Your task to perform on an android device: Open display settings Image 0: 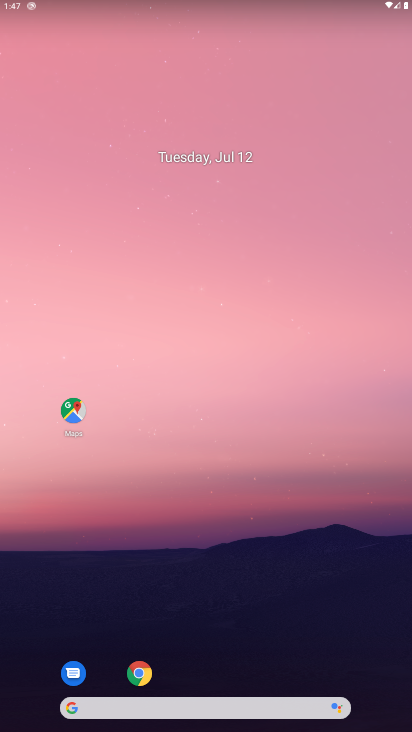
Step 0: click (286, 209)
Your task to perform on an android device: Open display settings Image 1: 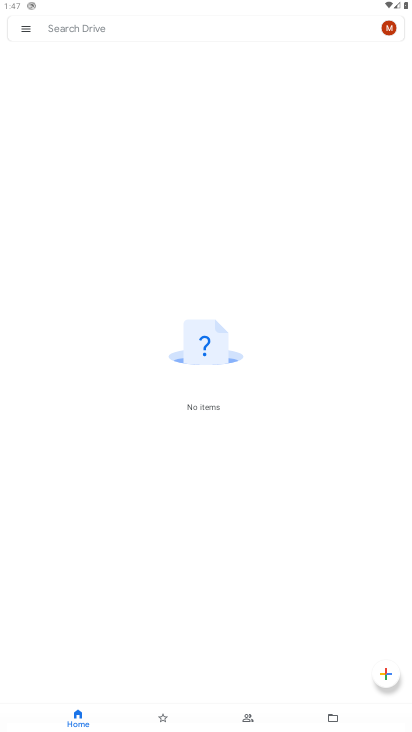
Step 1: press home button
Your task to perform on an android device: Open display settings Image 2: 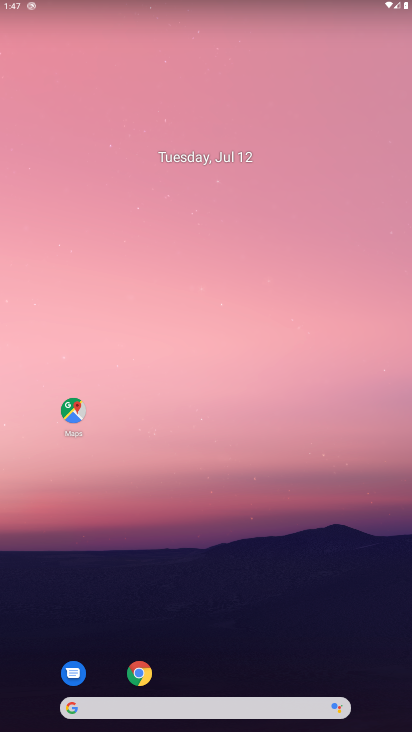
Step 2: drag from (150, 700) to (150, 388)
Your task to perform on an android device: Open display settings Image 3: 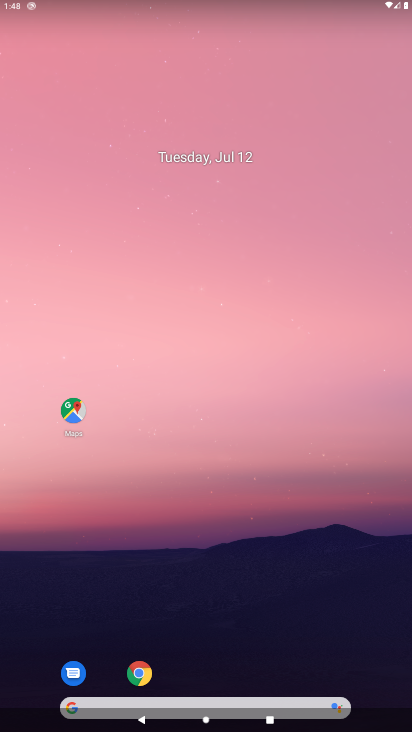
Step 3: drag from (215, 661) to (231, 334)
Your task to perform on an android device: Open display settings Image 4: 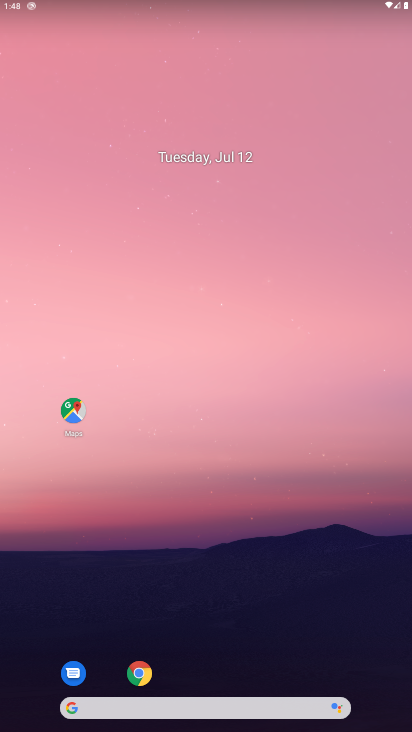
Step 4: drag from (223, 696) to (231, 337)
Your task to perform on an android device: Open display settings Image 5: 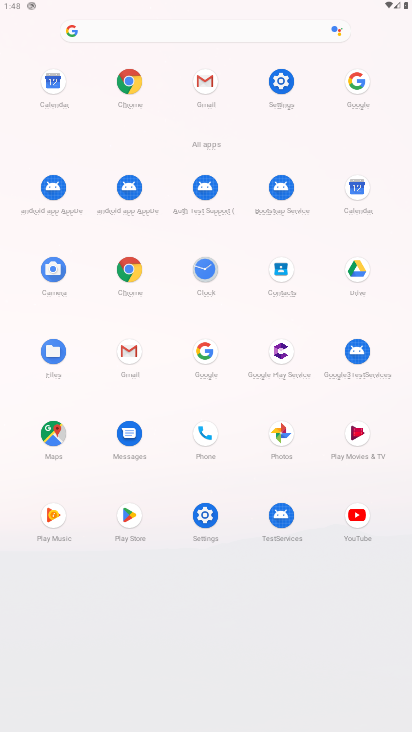
Step 5: click (284, 81)
Your task to perform on an android device: Open display settings Image 6: 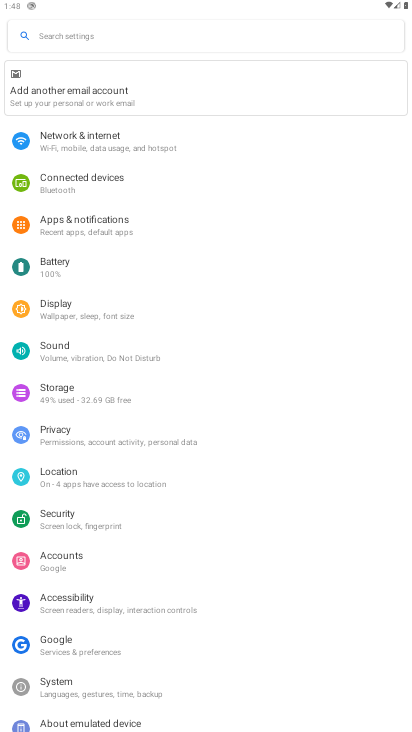
Step 6: click (74, 317)
Your task to perform on an android device: Open display settings Image 7: 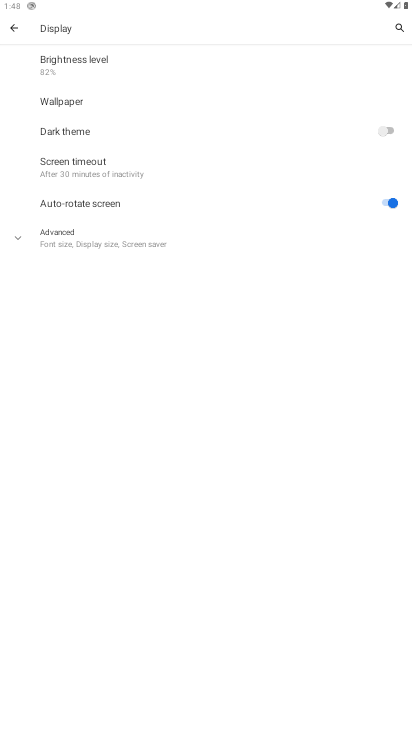
Step 7: click (77, 235)
Your task to perform on an android device: Open display settings Image 8: 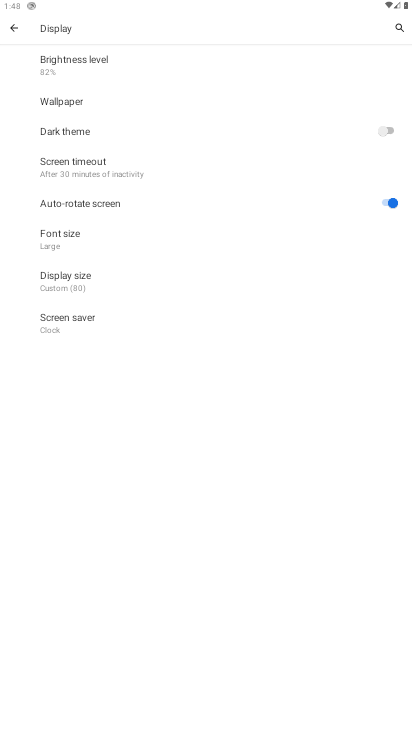
Step 8: task complete